Your task to perform on an android device: Open Google Maps Image 0: 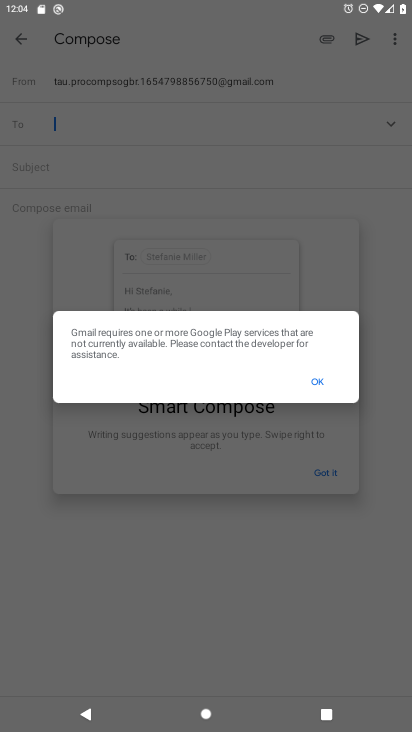
Step 0: press home button
Your task to perform on an android device: Open Google Maps Image 1: 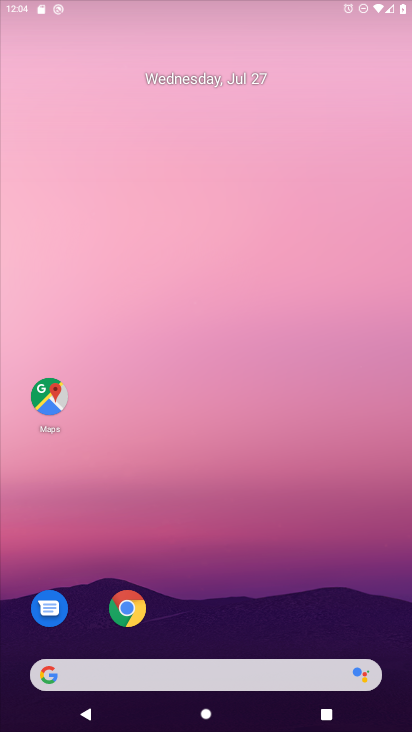
Step 1: drag from (290, 625) to (236, 35)
Your task to perform on an android device: Open Google Maps Image 2: 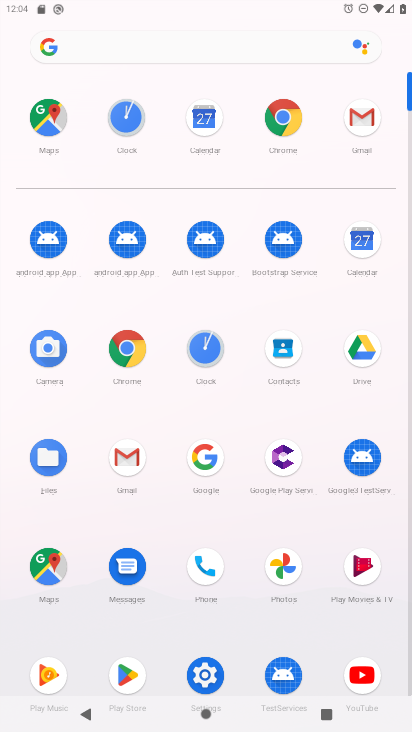
Step 2: click (50, 122)
Your task to perform on an android device: Open Google Maps Image 3: 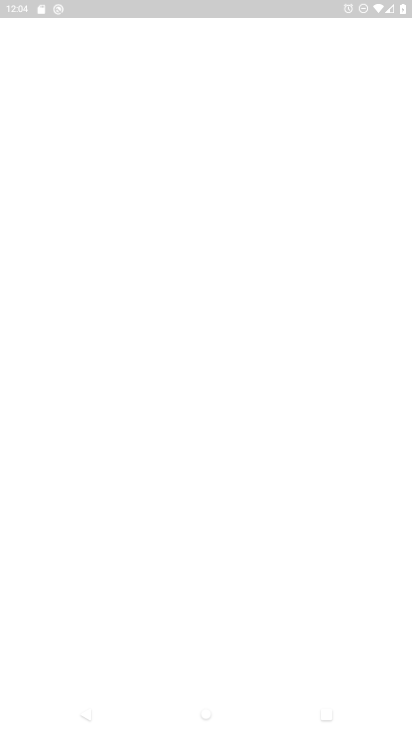
Step 3: task complete